Your task to perform on an android device: Open the calendar app, open the side menu, and click the "Day" option Image 0: 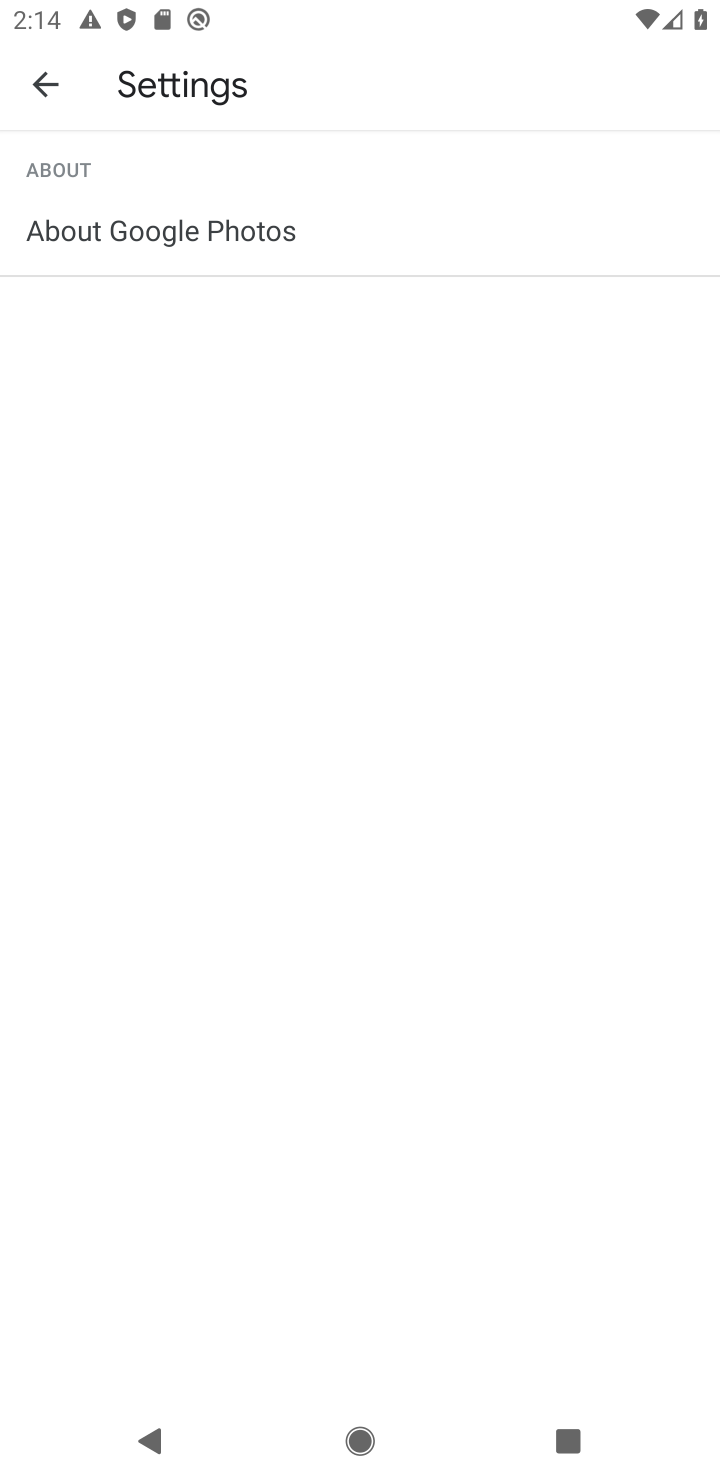
Step 0: press home button
Your task to perform on an android device: Open the calendar app, open the side menu, and click the "Day" option Image 1: 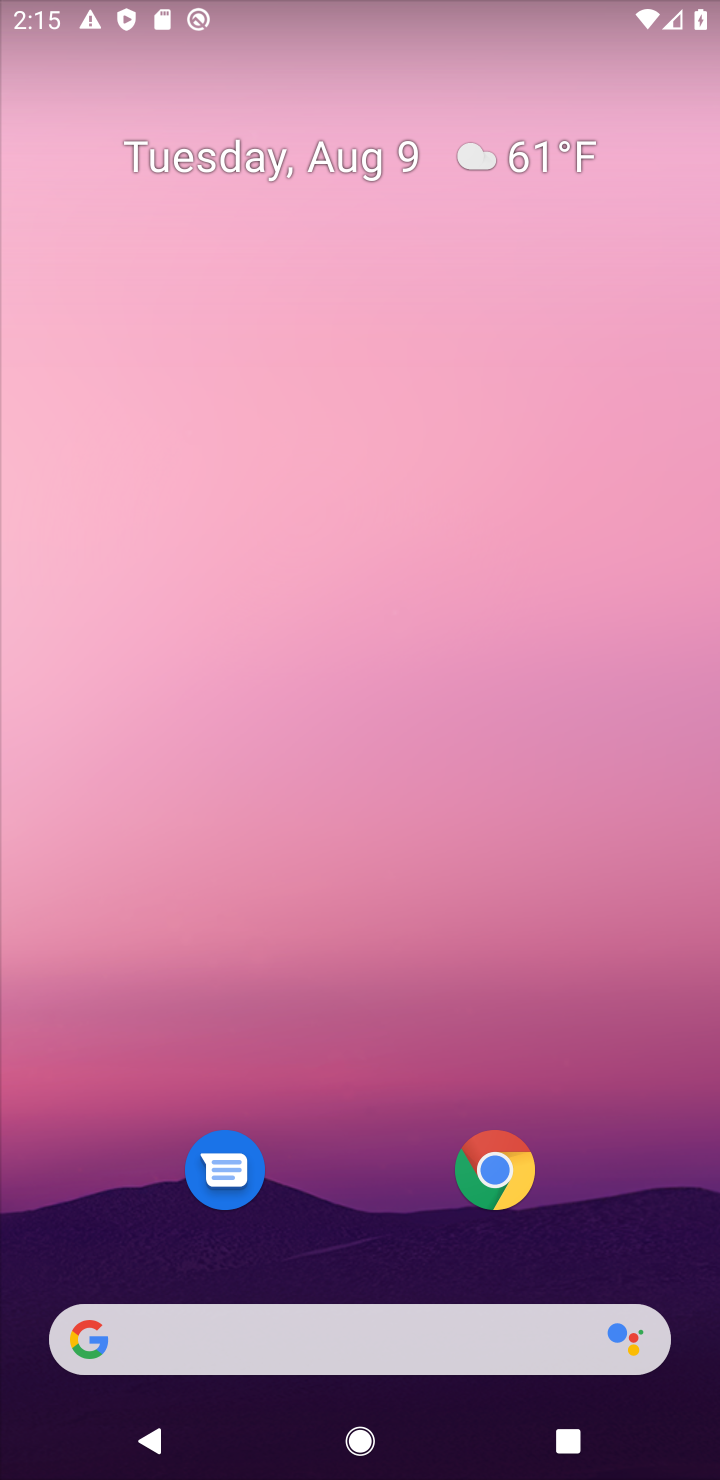
Step 1: drag from (350, 1262) to (356, 24)
Your task to perform on an android device: Open the calendar app, open the side menu, and click the "Day" option Image 2: 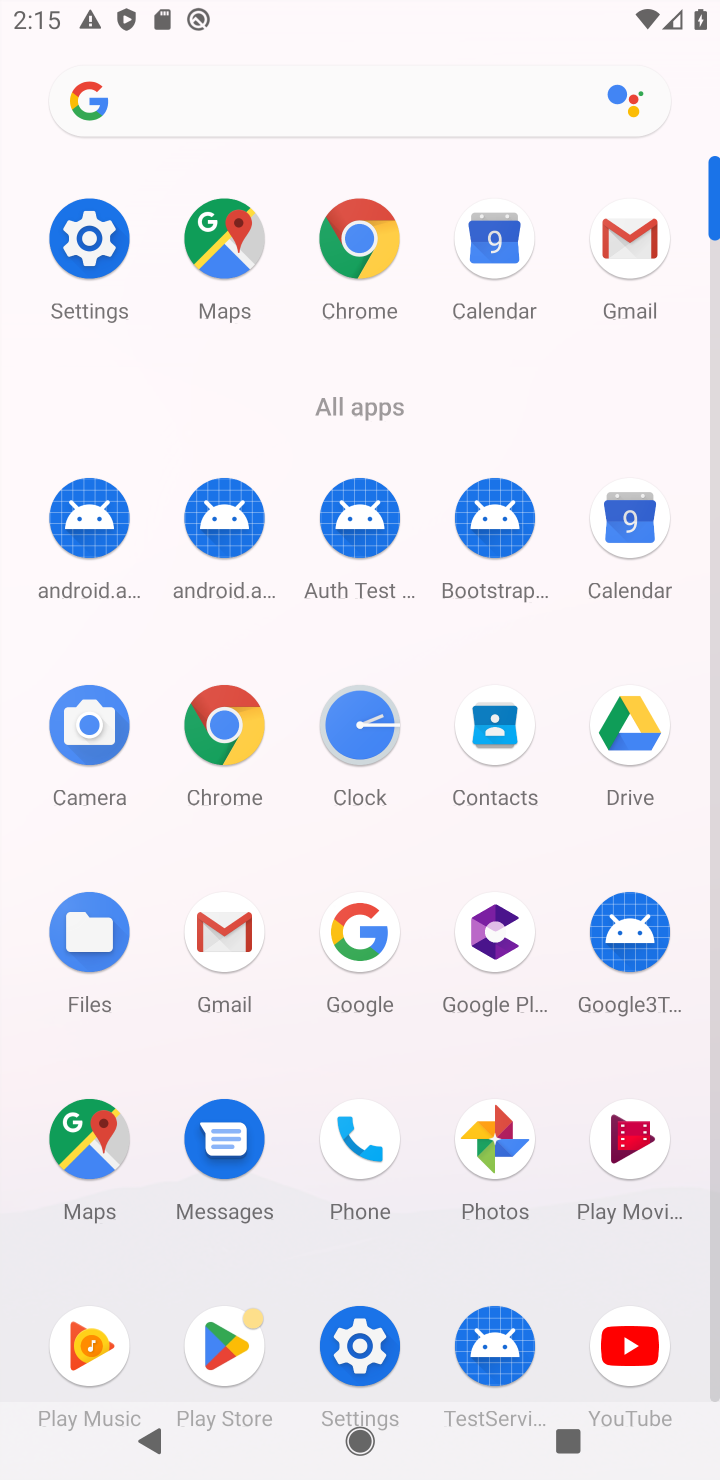
Step 2: click (630, 545)
Your task to perform on an android device: Open the calendar app, open the side menu, and click the "Day" option Image 3: 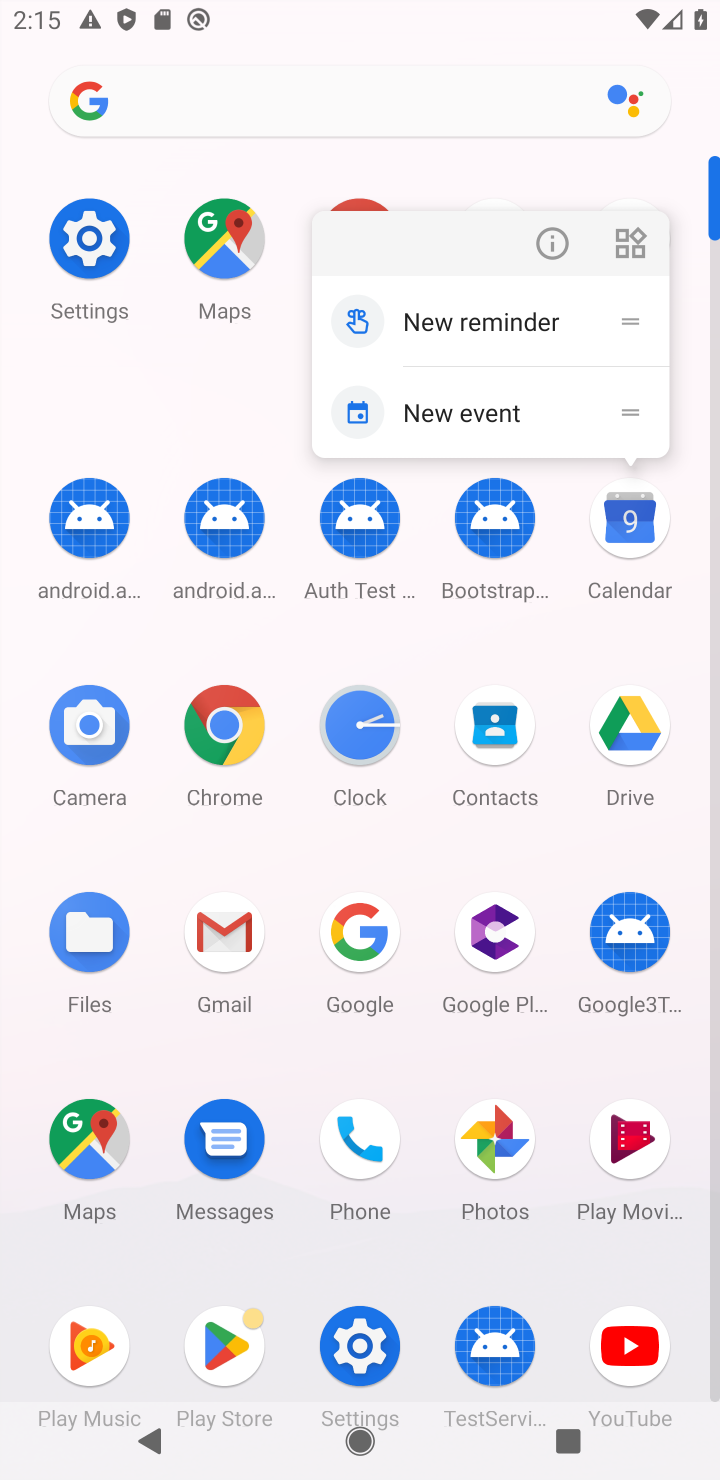
Step 3: click (630, 545)
Your task to perform on an android device: Open the calendar app, open the side menu, and click the "Day" option Image 4: 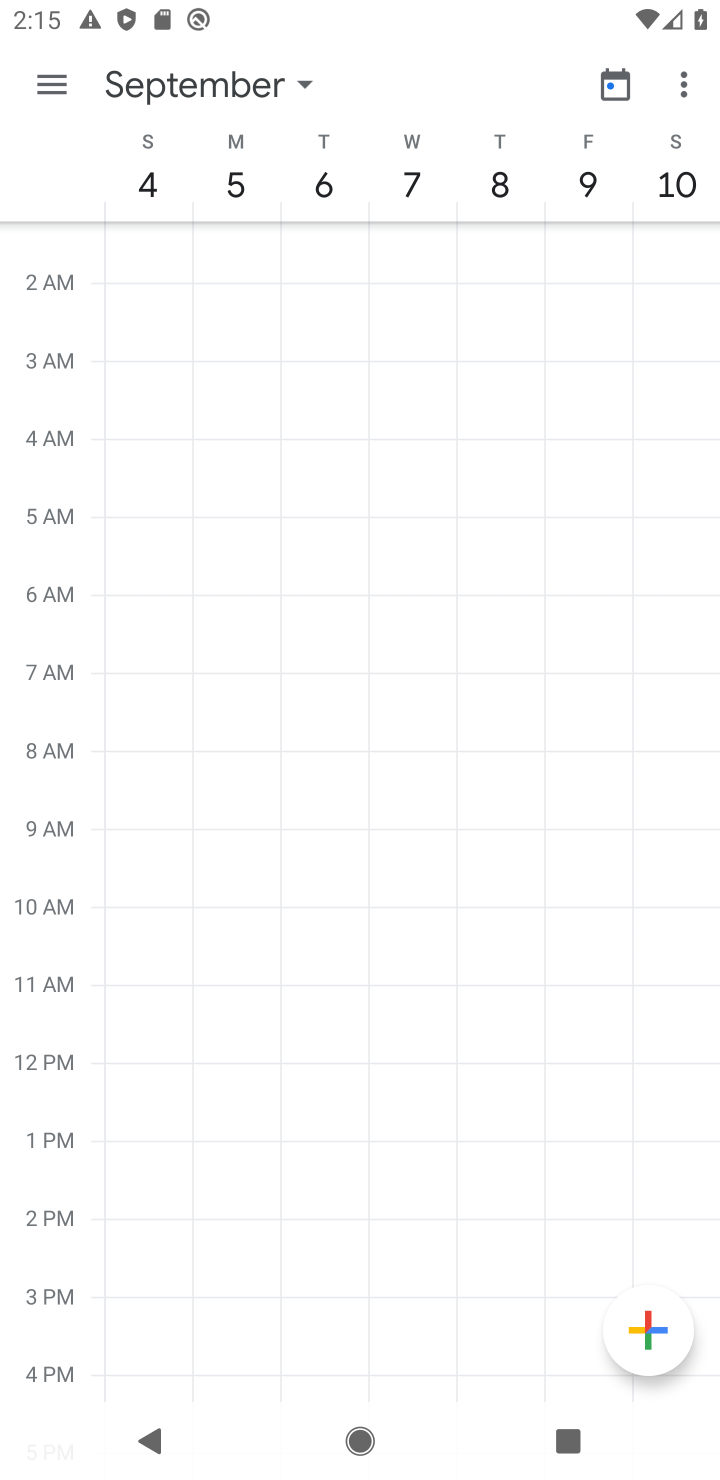
Step 4: click (43, 85)
Your task to perform on an android device: Open the calendar app, open the side menu, and click the "Day" option Image 5: 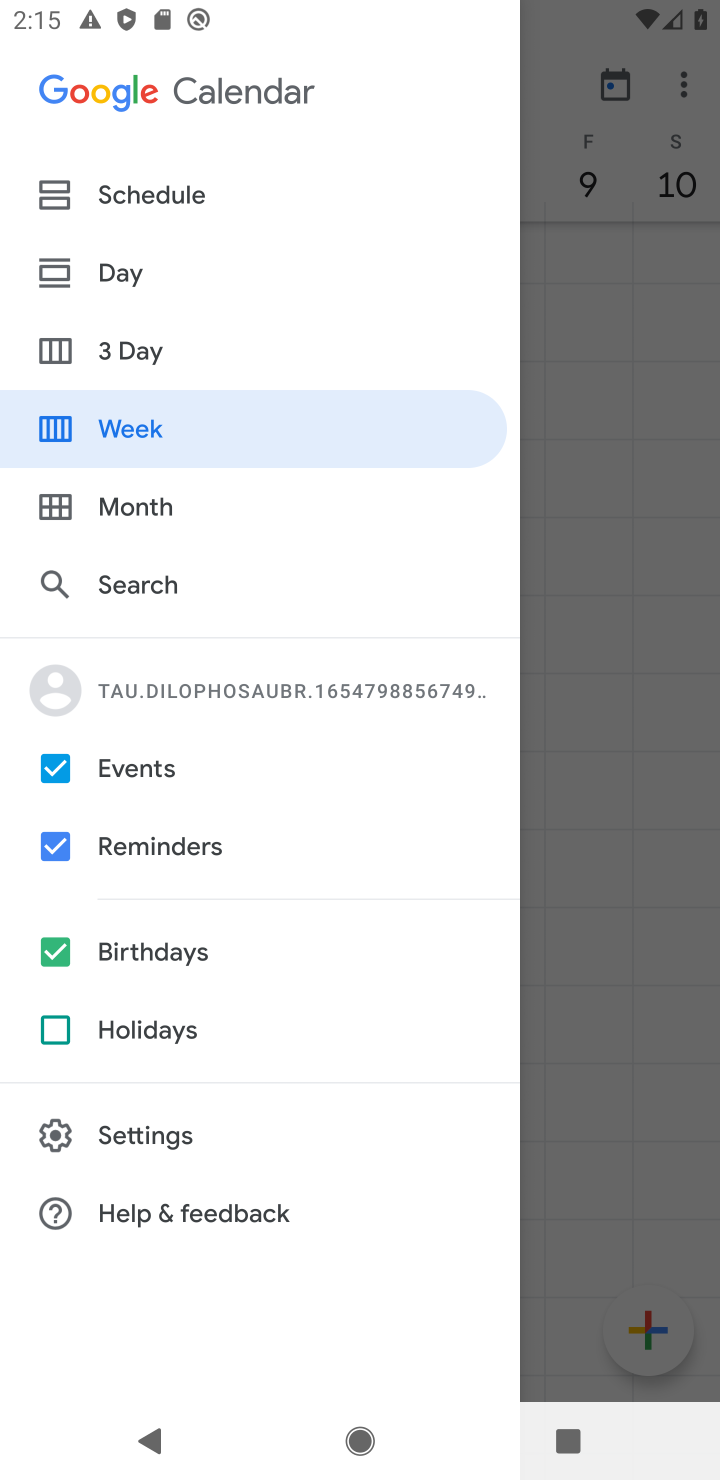
Step 5: click (167, 272)
Your task to perform on an android device: Open the calendar app, open the side menu, and click the "Day" option Image 6: 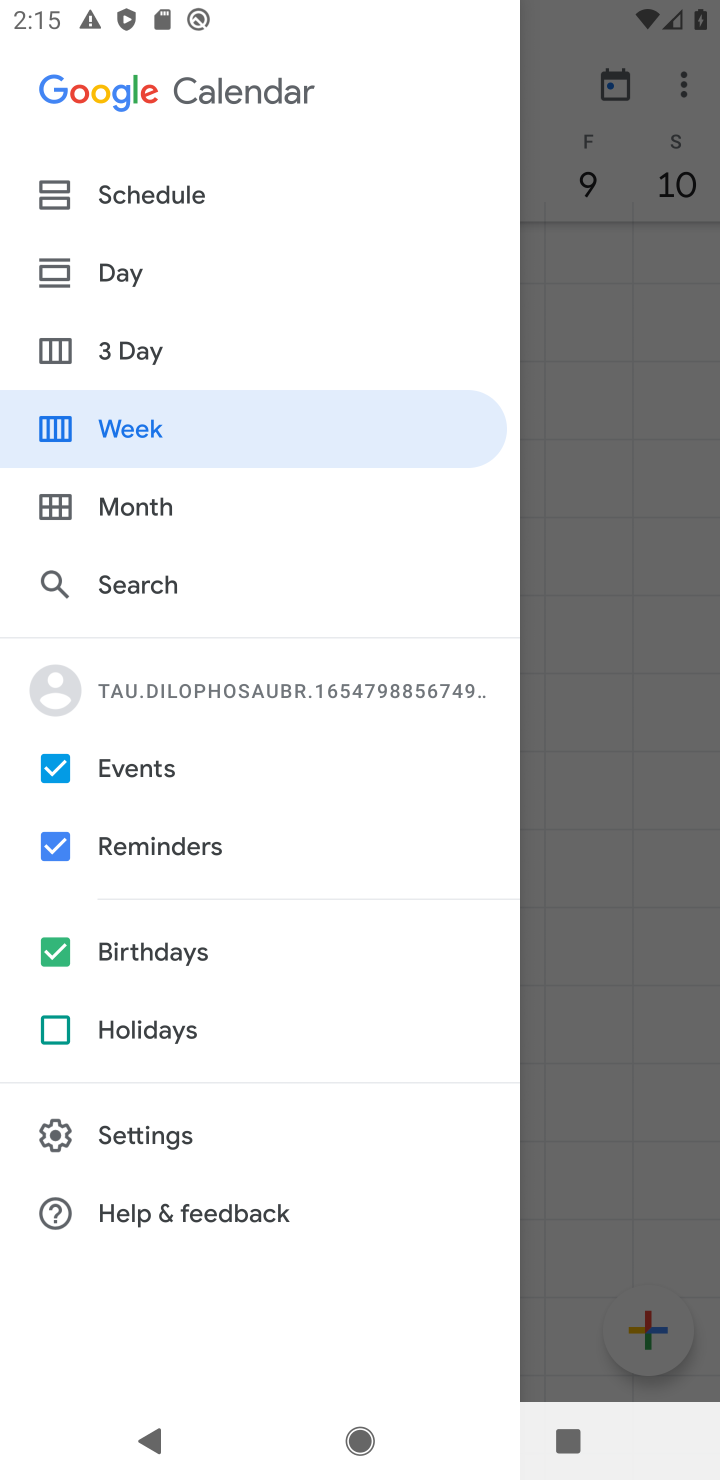
Step 6: click (159, 278)
Your task to perform on an android device: Open the calendar app, open the side menu, and click the "Day" option Image 7: 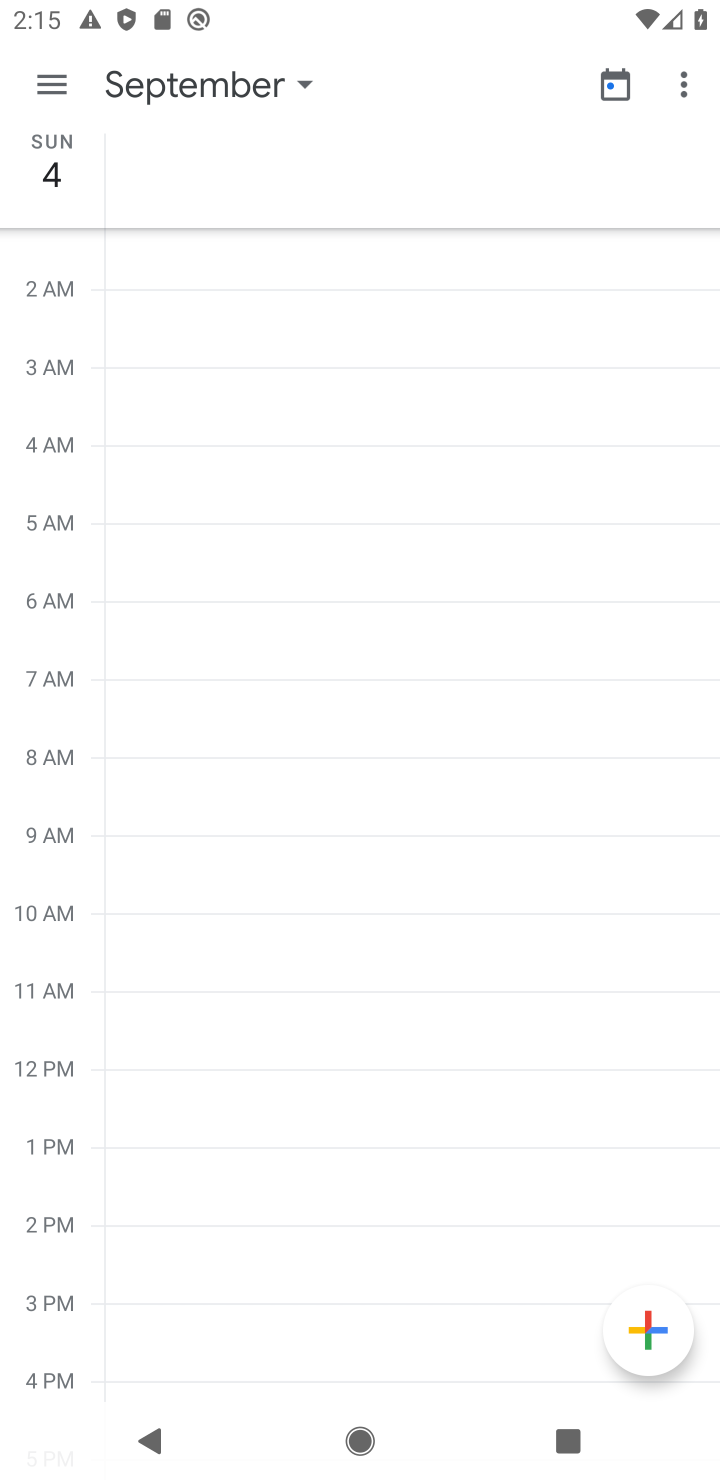
Step 7: task complete